Your task to perform on an android device: open app "Google Pay: Save, Pay, Manage" (install if not already installed) Image 0: 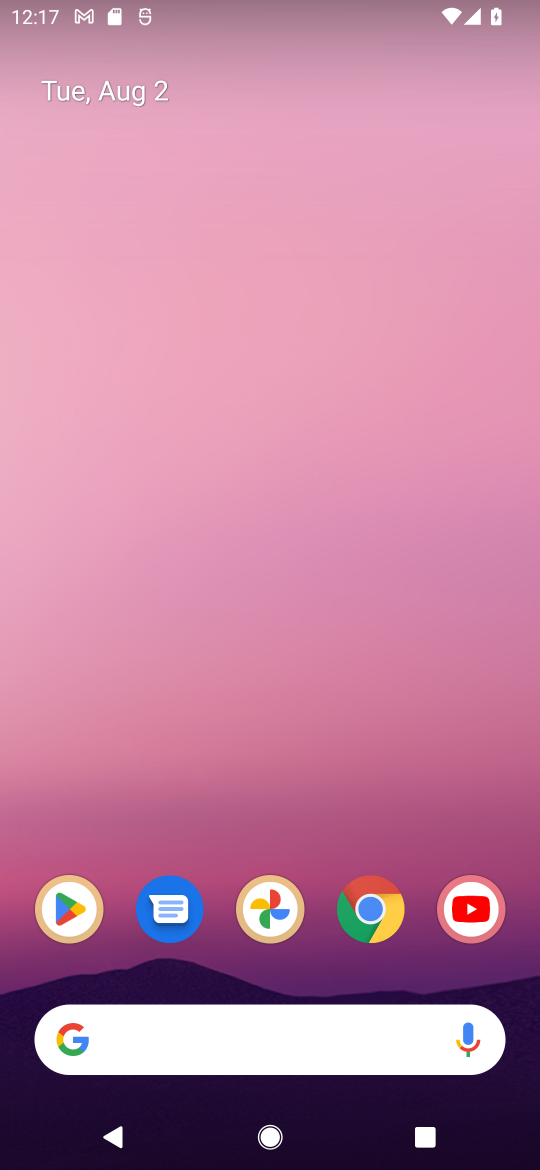
Step 0: press home button
Your task to perform on an android device: open app "Google Pay: Save, Pay, Manage" (install if not already installed) Image 1: 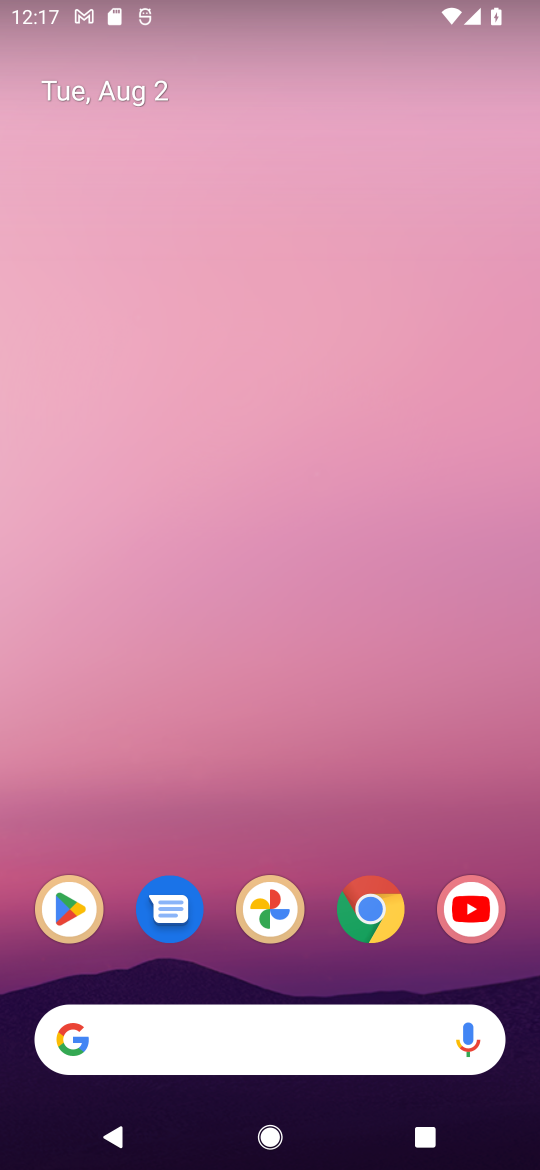
Step 1: click (74, 901)
Your task to perform on an android device: open app "Google Pay: Save, Pay, Manage" (install if not already installed) Image 2: 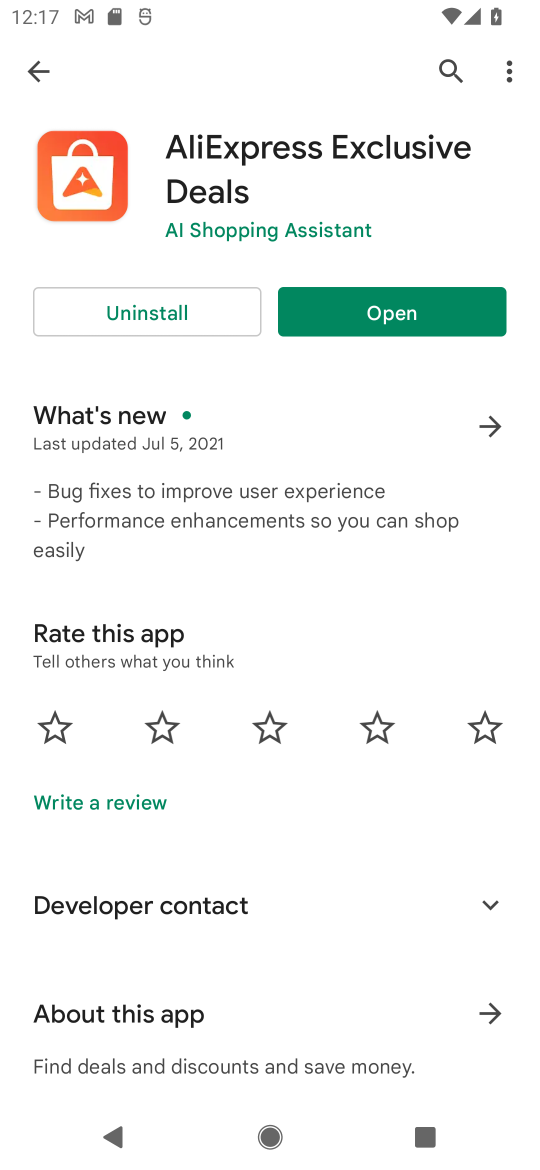
Step 2: click (24, 62)
Your task to perform on an android device: open app "Google Pay: Save, Pay, Manage" (install if not already installed) Image 3: 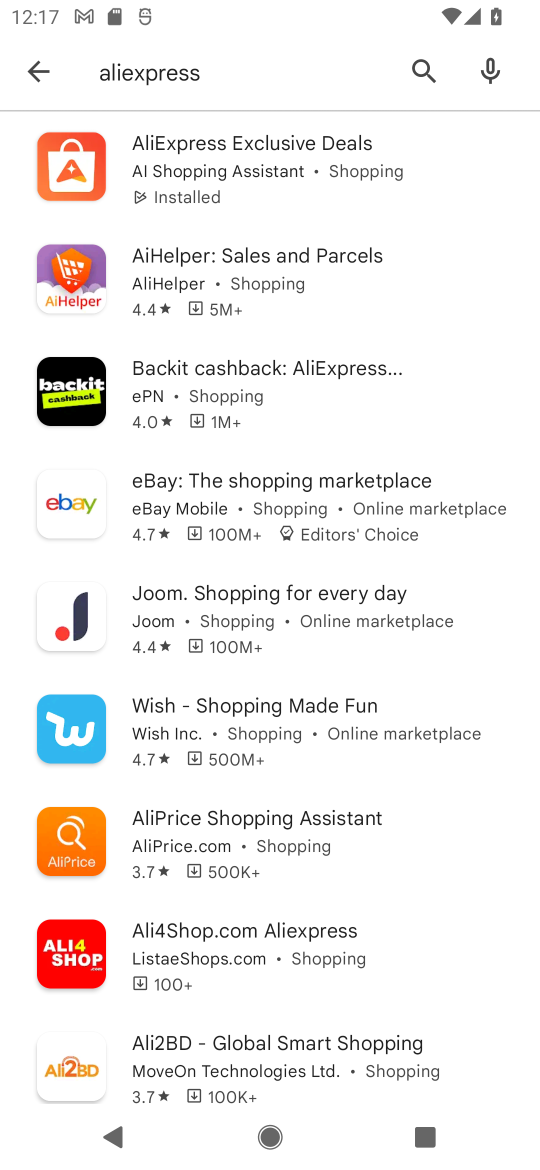
Step 3: click (426, 56)
Your task to perform on an android device: open app "Google Pay: Save, Pay, Manage" (install if not already installed) Image 4: 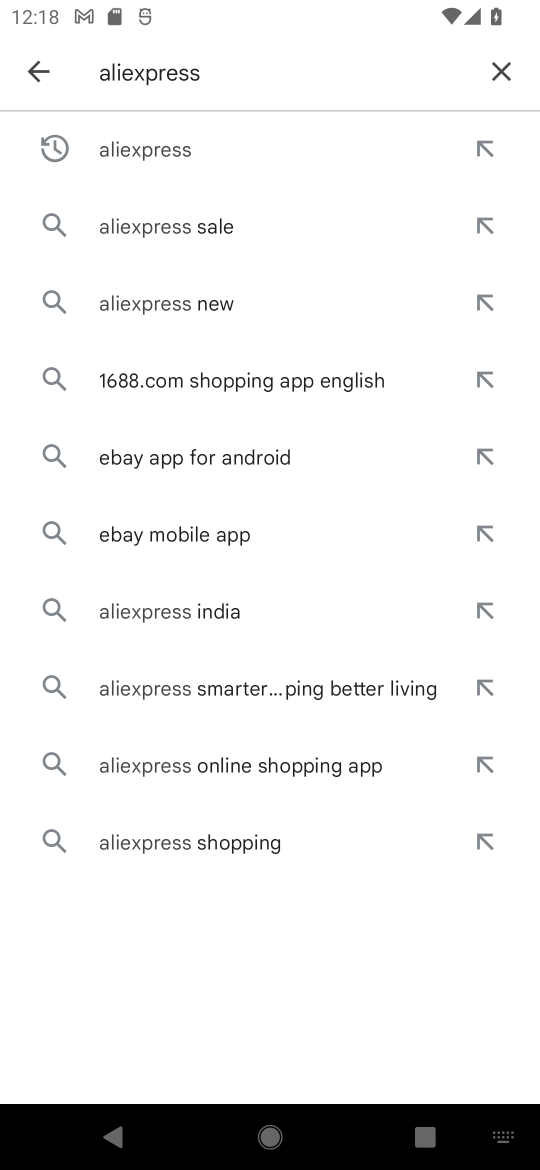
Step 4: click (504, 77)
Your task to perform on an android device: open app "Google Pay: Save, Pay, Manage" (install if not already installed) Image 5: 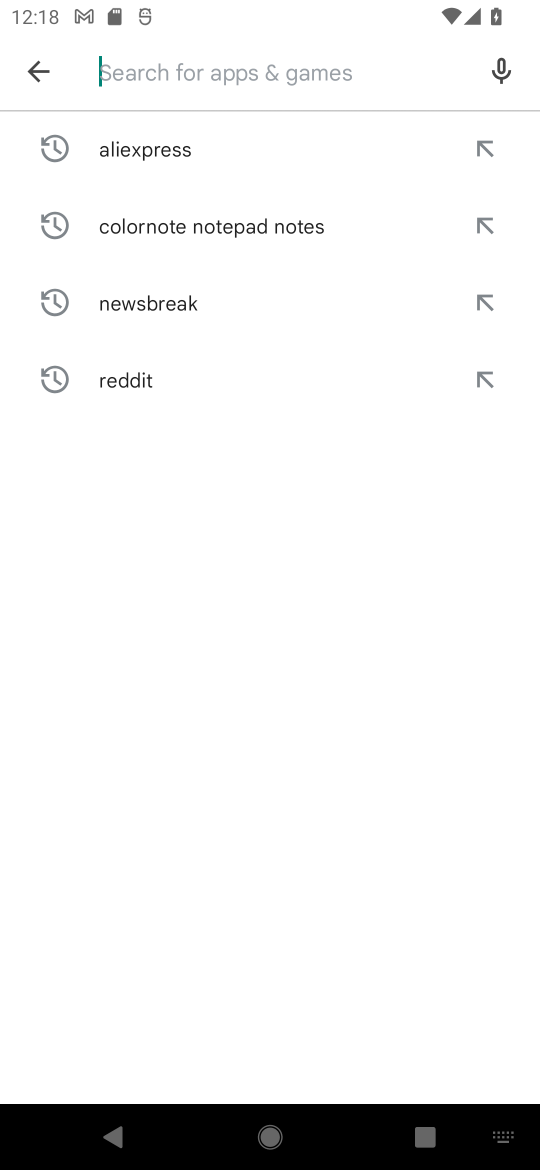
Step 5: type "Google Pay: Save, Pay, Manage"
Your task to perform on an android device: open app "Google Pay: Save, Pay, Manage" (install if not already installed) Image 6: 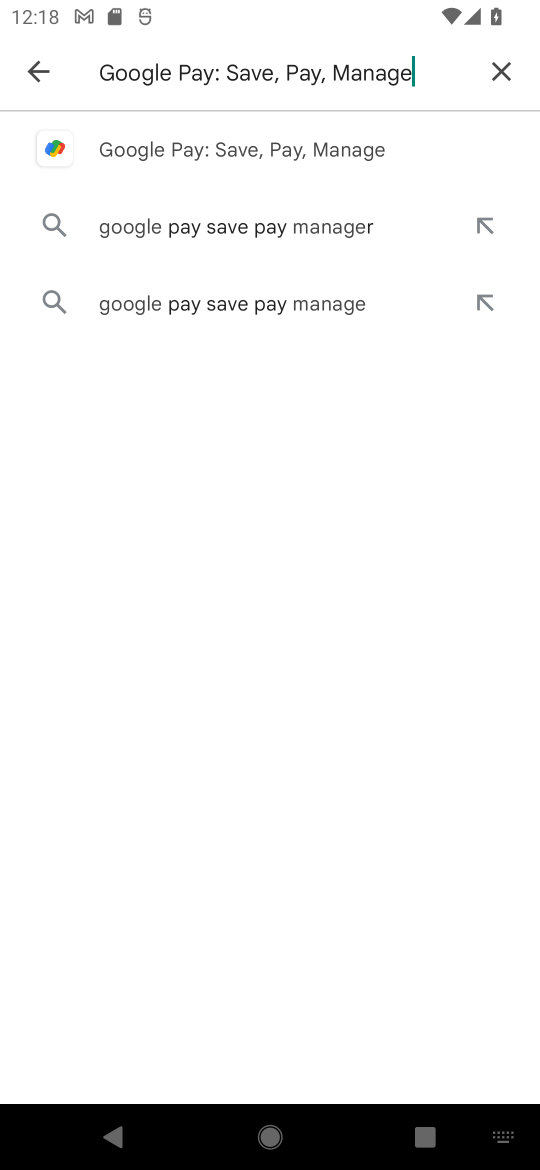
Step 6: click (273, 150)
Your task to perform on an android device: open app "Google Pay: Save, Pay, Manage" (install if not already installed) Image 7: 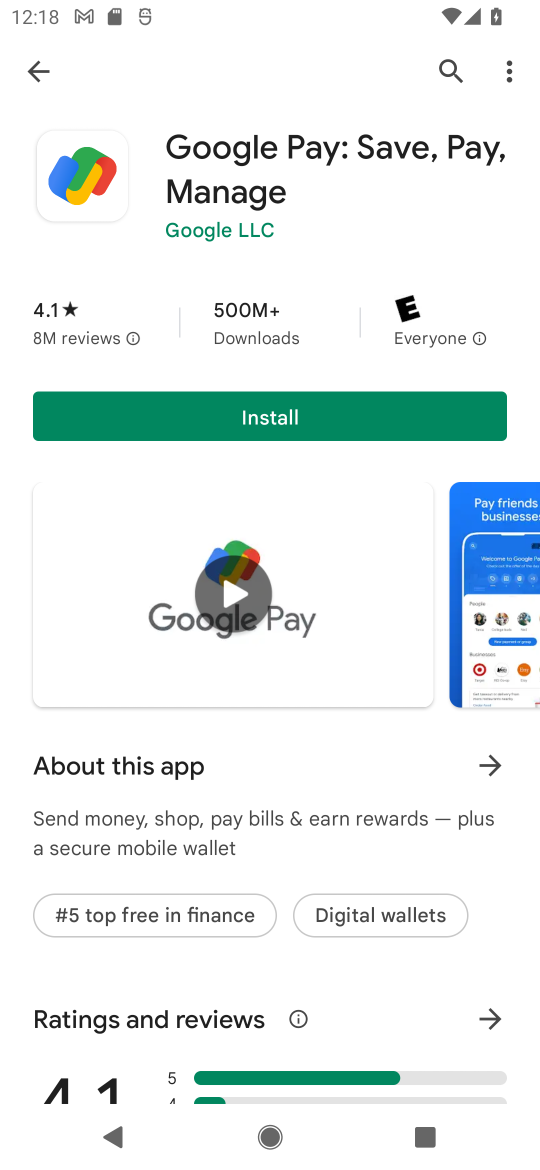
Step 7: click (343, 409)
Your task to perform on an android device: open app "Google Pay: Save, Pay, Manage" (install if not already installed) Image 8: 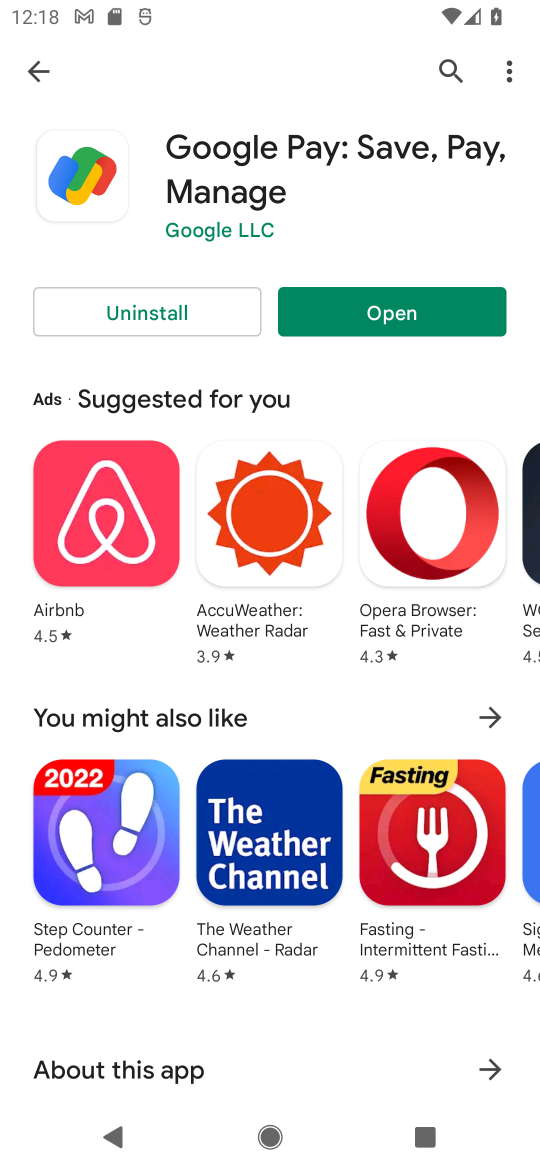
Step 8: click (402, 305)
Your task to perform on an android device: open app "Google Pay: Save, Pay, Manage" (install if not already installed) Image 9: 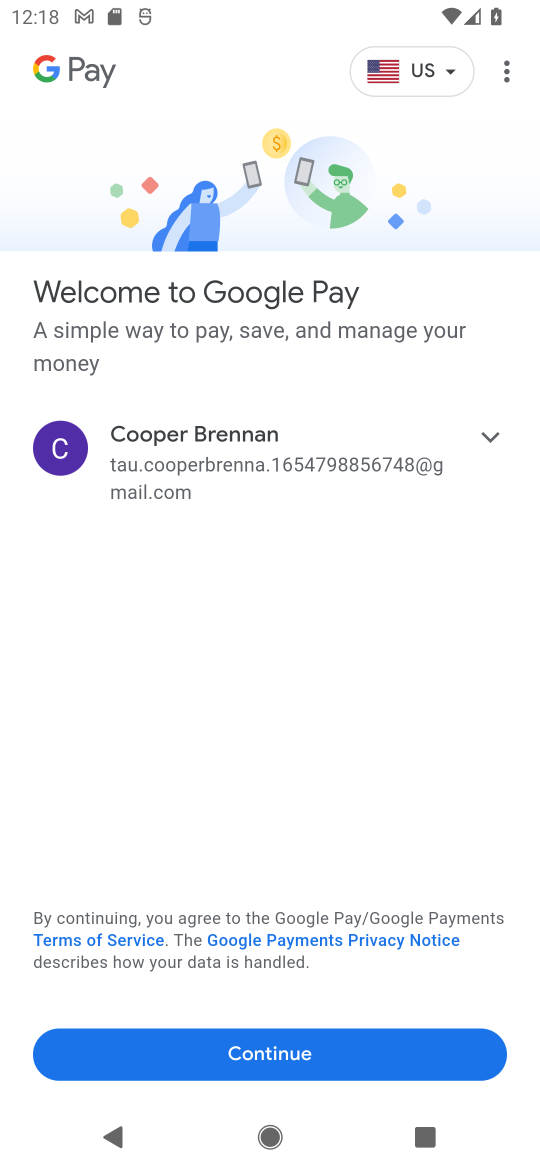
Step 9: click (343, 1050)
Your task to perform on an android device: open app "Google Pay: Save, Pay, Manage" (install if not already installed) Image 10: 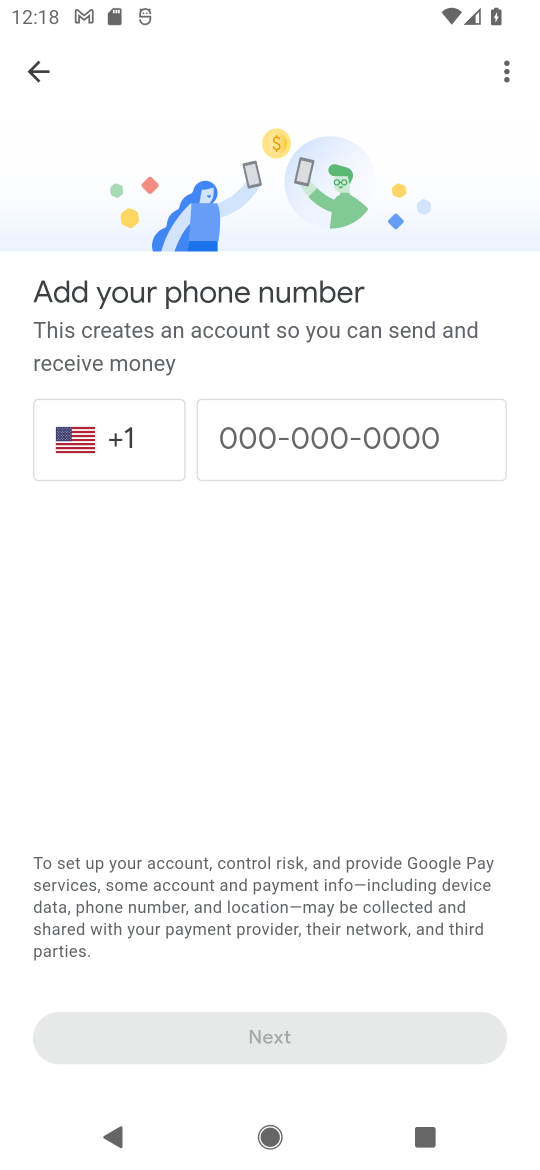
Step 10: task complete